Your task to perform on an android device: turn on the 24-hour format for clock Image 0: 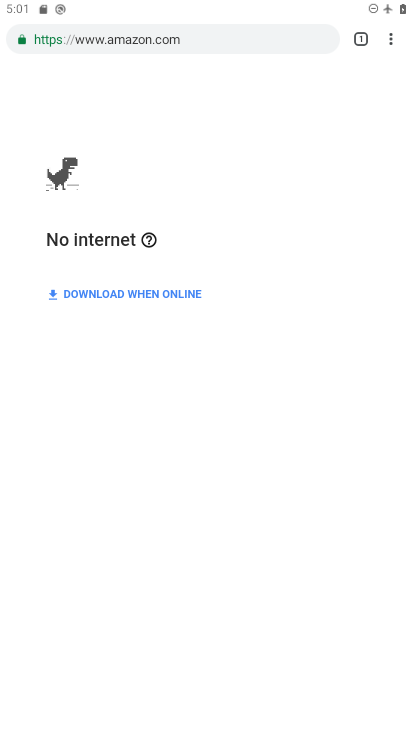
Step 0: press home button
Your task to perform on an android device: turn on the 24-hour format for clock Image 1: 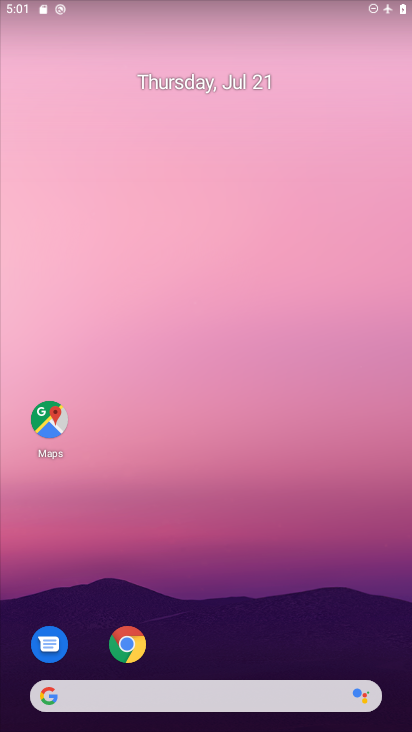
Step 1: drag from (194, 418) to (205, 73)
Your task to perform on an android device: turn on the 24-hour format for clock Image 2: 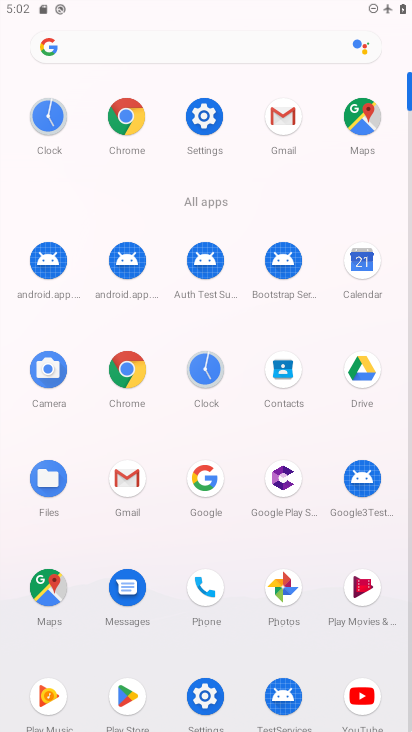
Step 2: click (204, 368)
Your task to perform on an android device: turn on the 24-hour format for clock Image 3: 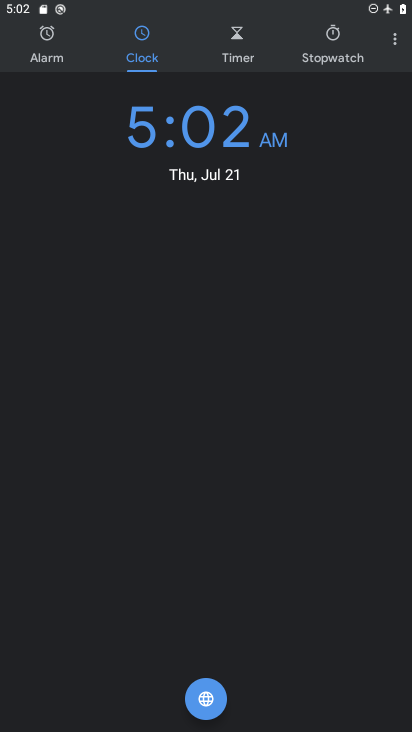
Step 3: click (401, 38)
Your task to perform on an android device: turn on the 24-hour format for clock Image 4: 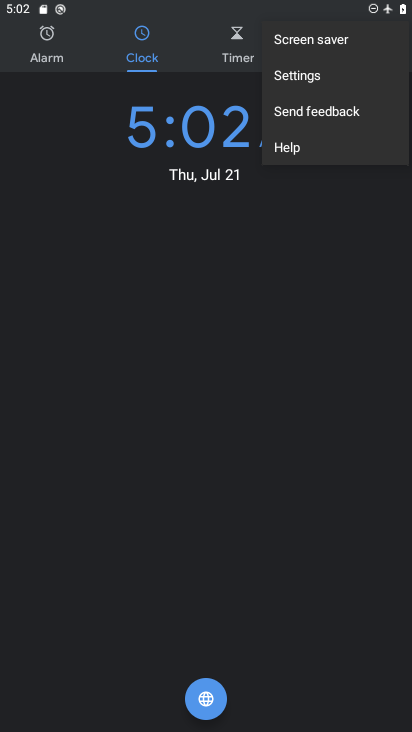
Step 4: click (315, 74)
Your task to perform on an android device: turn on the 24-hour format for clock Image 5: 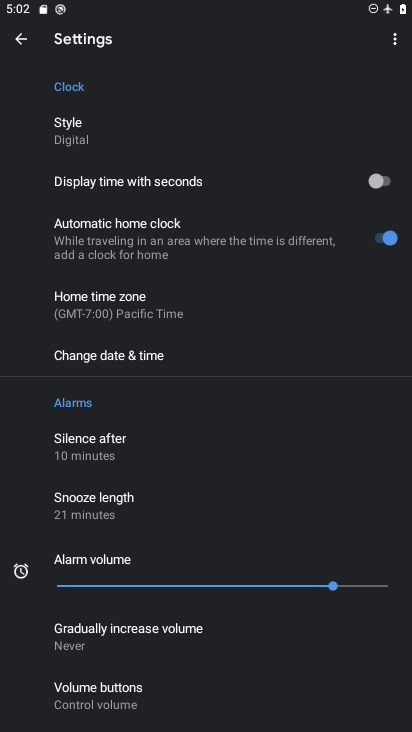
Step 5: click (253, 345)
Your task to perform on an android device: turn on the 24-hour format for clock Image 6: 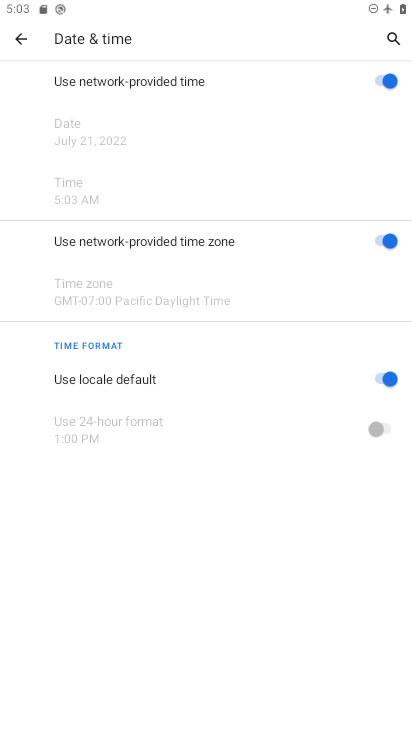
Step 6: click (377, 382)
Your task to perform on an android device: turn on the 24-hour format for clock Image 7: 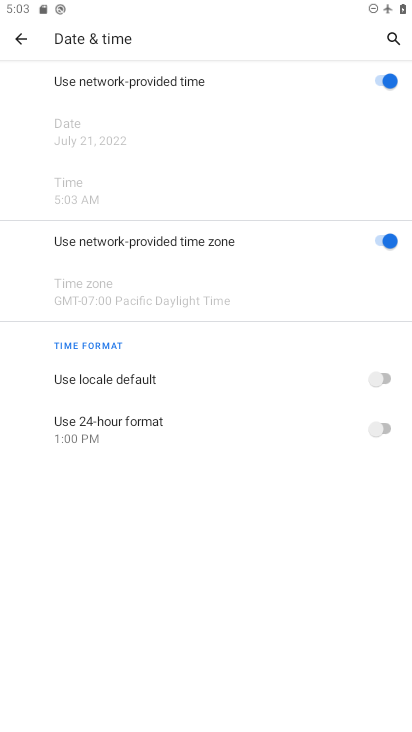
Step 7: click (385, 435)
Your task to perform on an android device: turn on the 24-hour format for clock Image 8: 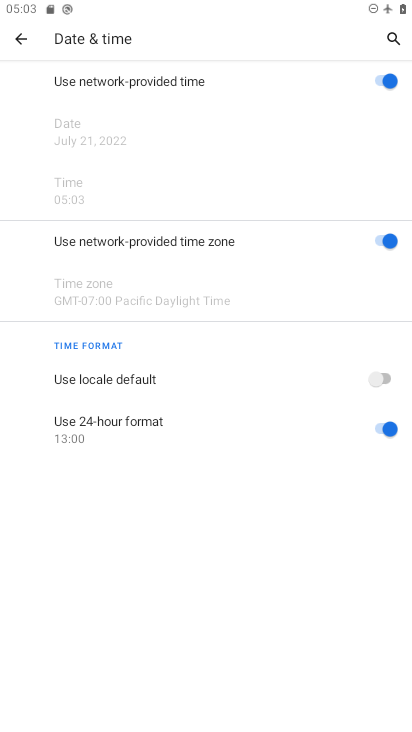
Step 8: task complete